Your task to perform on an android device: Search for Italian restaurants on Maps Image 0: 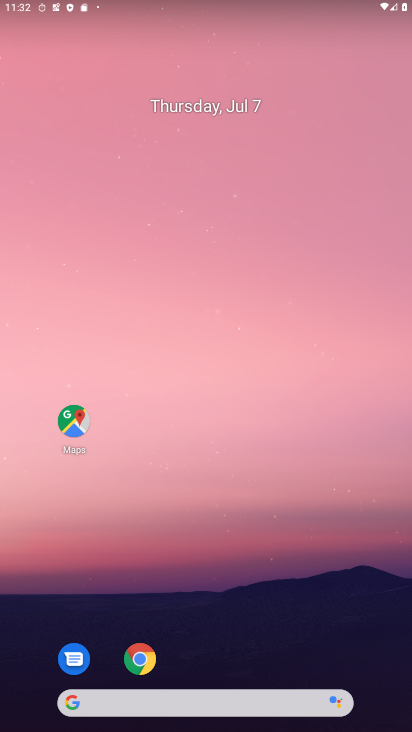
Step 0: press home button
Your task to perform on an android device: Search for Italian restaurants on Maps Image 1: 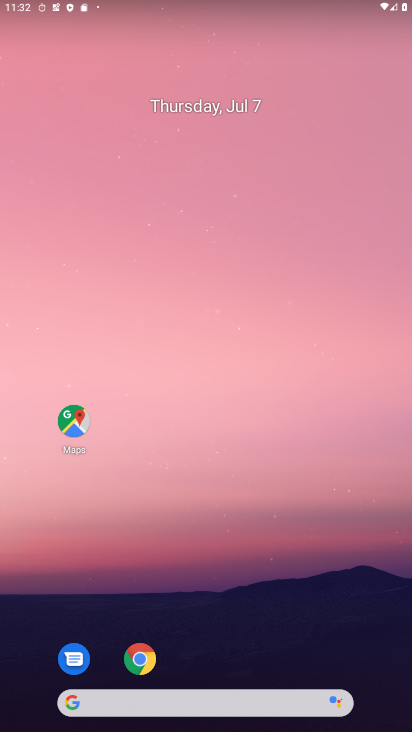
Step 1: click (77, 418)
Your task to perform on an android device: Search for Italian restaurants on Maps Image 2: 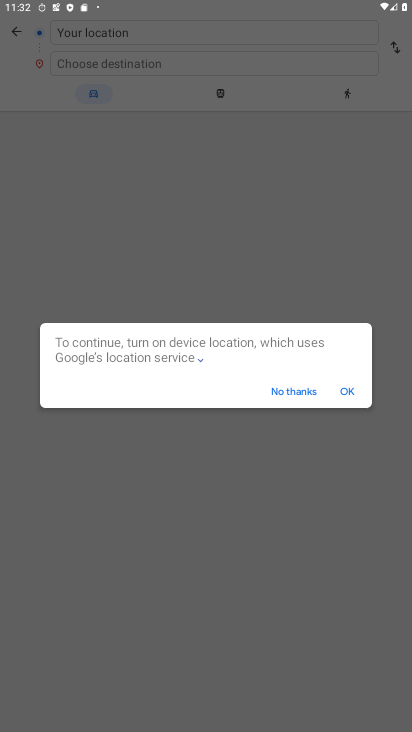
Step 2: click (300, 388)
Your task to perform on an android device: Search for Italian restaurants on Maps Image 3: 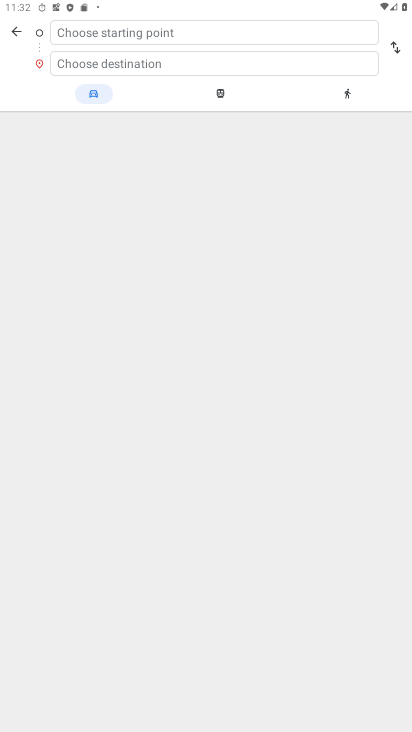
Step 3: click (19, 27)
Your task to perform on an android device: Search for Italian restaurants on Maps Image 4: 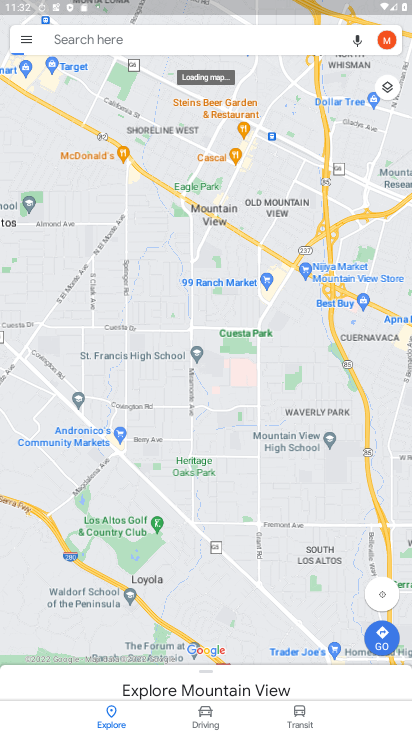
Step 4: click (129, 38)
Your task to perform on an android device: Search for Italian restaurants on Maps Image 5: 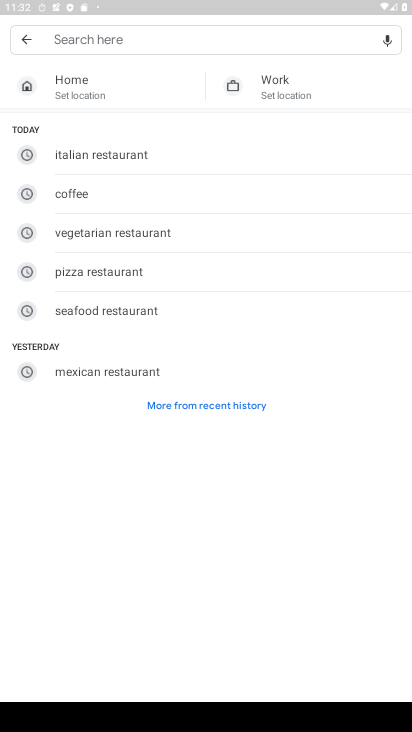
Step 5: click (96, 159)
Your task to perform on an android device: Search for Italian restaurants on Maps Image 6: 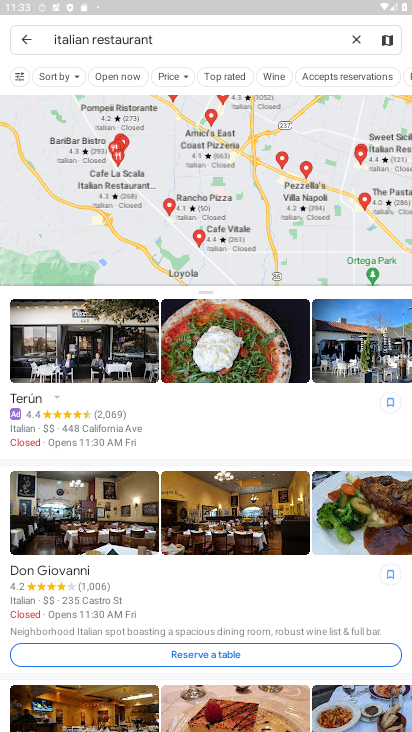
Step 6: task complete